Your task to perform on an android device: Go to ESPN.com Image 0: 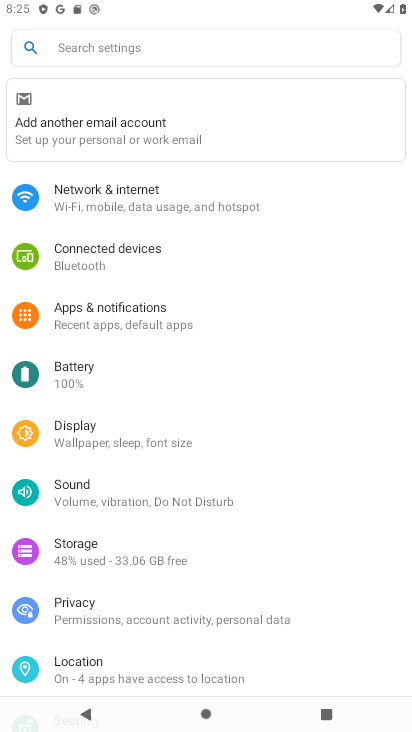
Step 0: press home button
Your task to perform on an android device: Go to ESPN.com Image 1: 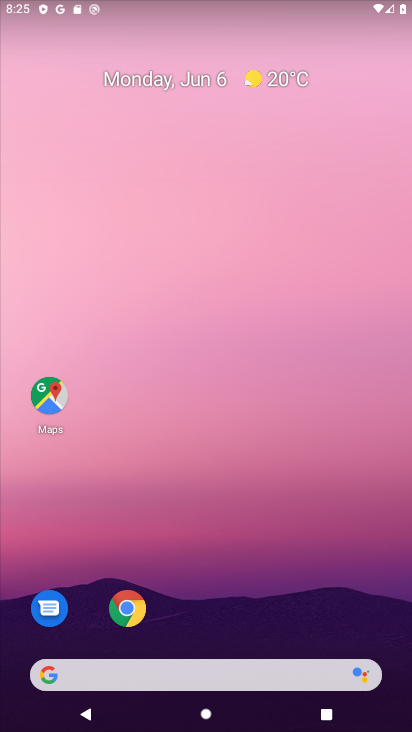
Step 1: click (191, 675)
Your task to perform on an android device: Go to ESPN.com Image 2: 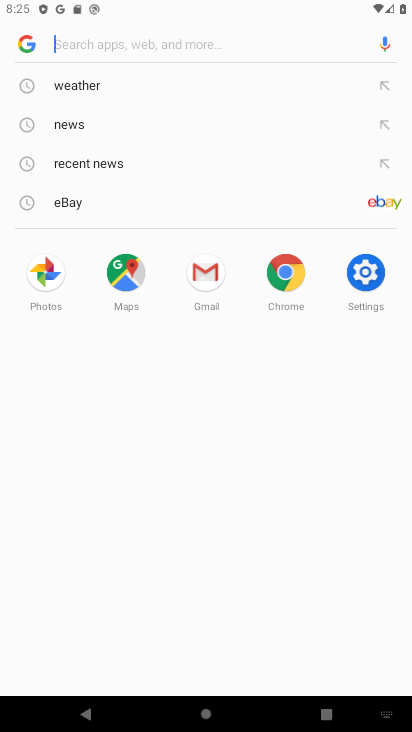
Step 2: type "espn"
Your task to perform on an android device: Go to ESPN.com Image 3: 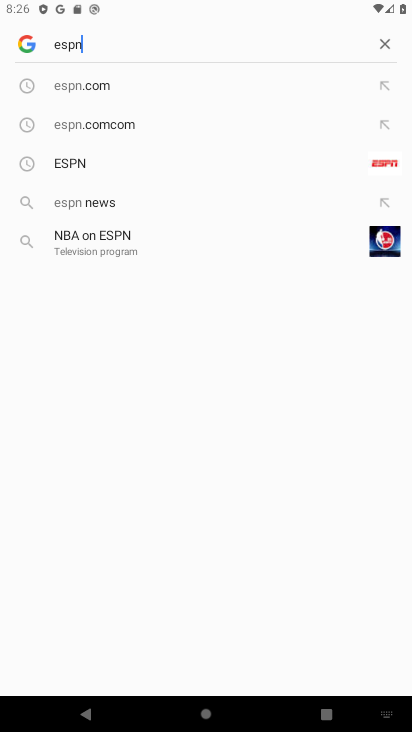
Step 3: click (183, 94)
Your task to perform on an android device: Go to ESPN.com Image 4: 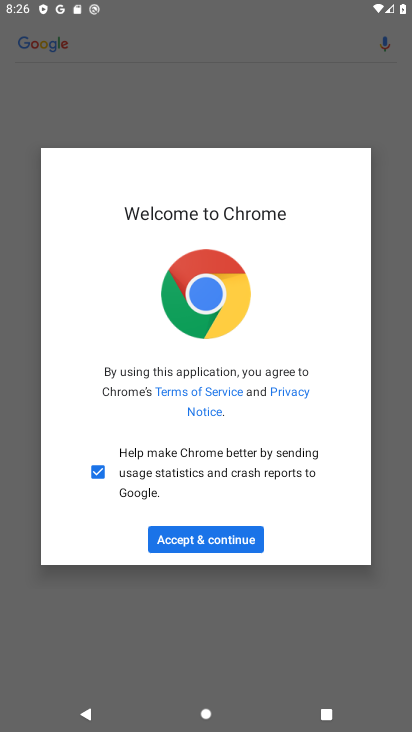
Step 4: task complete